Your task to perform on an android device: turn off sleep mode Image 0: 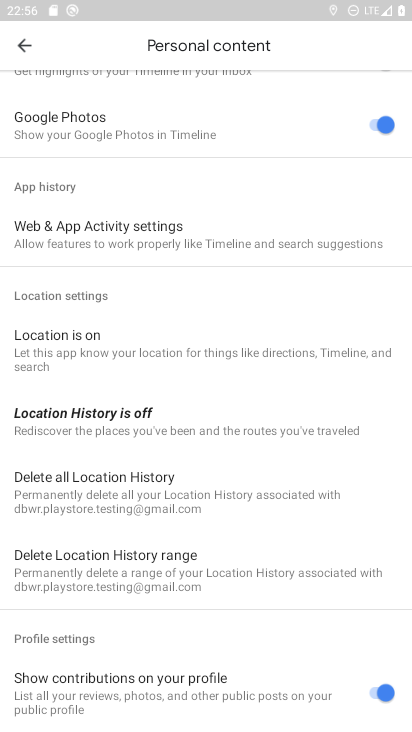
Step 0: press home button
Your task to perform on an android device: turn off sleep mode Image 1: 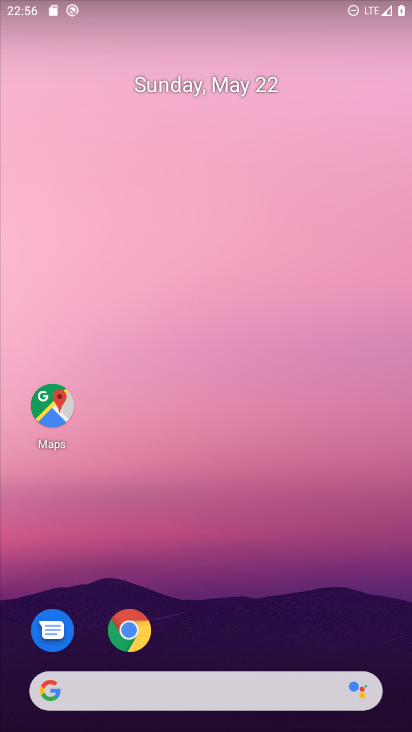
Step 1: drag from (195, 692) to (346, 209)
Your task to perform on an android device: turn off sleep mode Image 2: 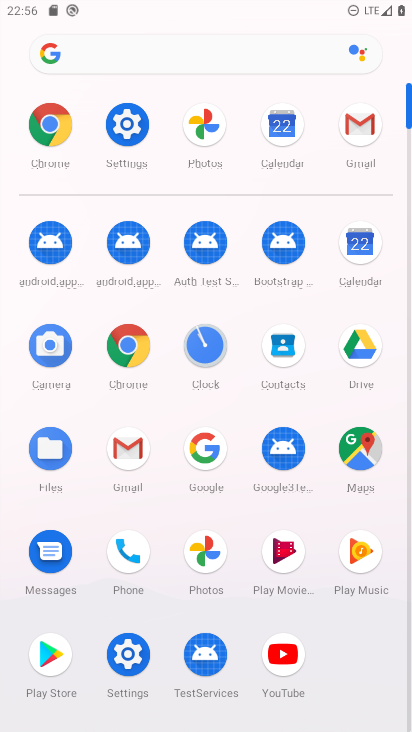
Step 2: click (133, 122)
Your task to perform on an android device: turn off sleep mode Image 3: 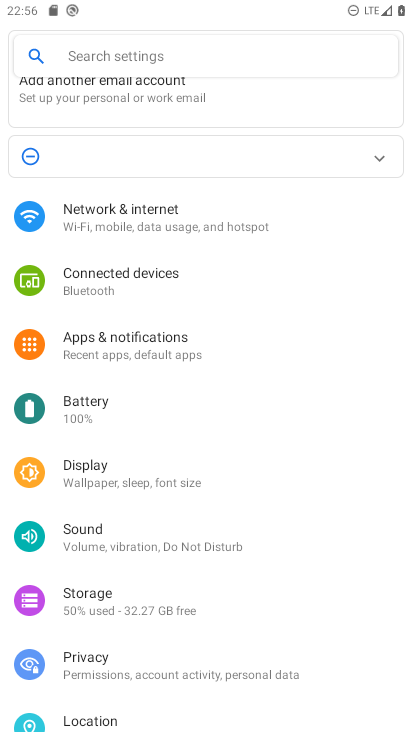
Step 3: click (157, 469)
Your task to perform on an android device: turn off sleep mode Image 4: 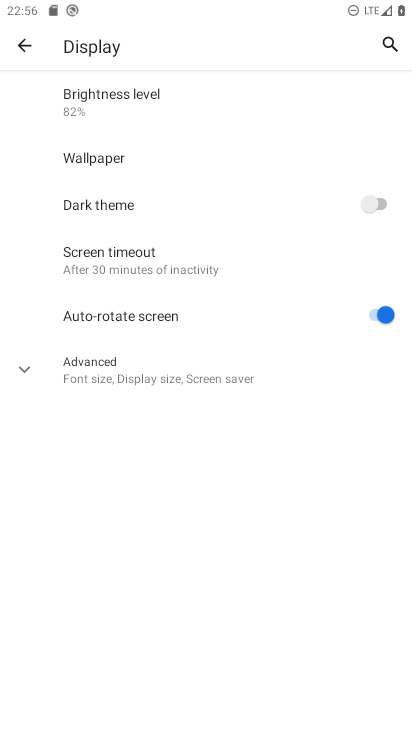
Step 4: task complete